Your task to perform on an android device: delete a single message in the gmail app Image 0: 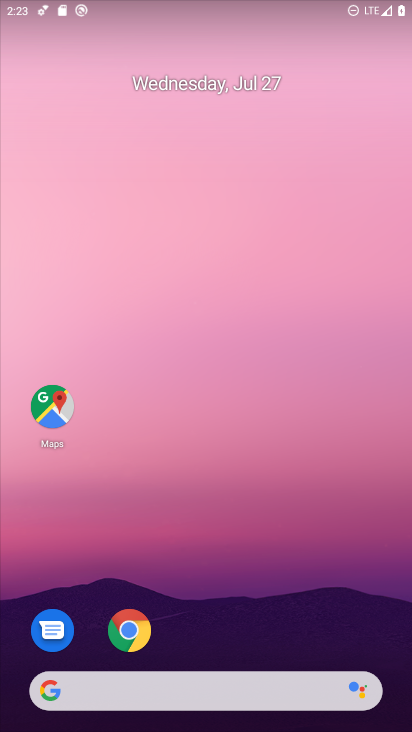
Step 0: drag from (362, 622) to (338, 110)
Your task to perform on an android device: delete a single message in the gmail app Image 1: 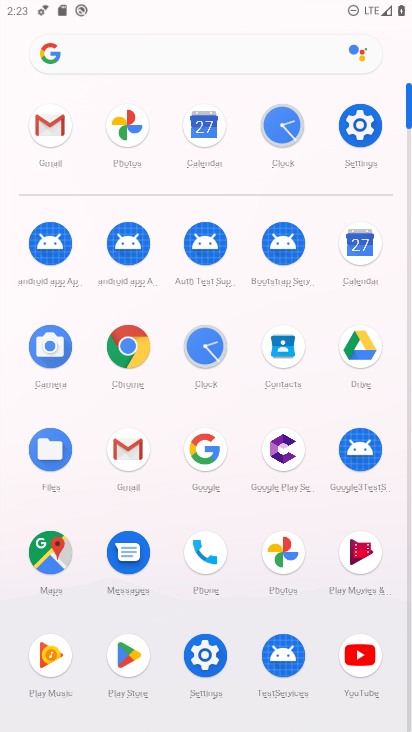
Step 1: click (127, 448)
Your task to perform on an android device: delete a single message in the gmail app Image 2: 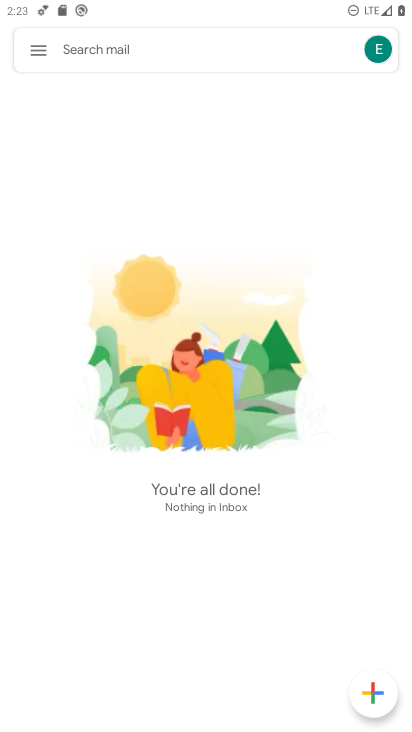
Step 2: click (32, 52)
Your task to perform on an android device: delete a single message in the gmail app Image 3: 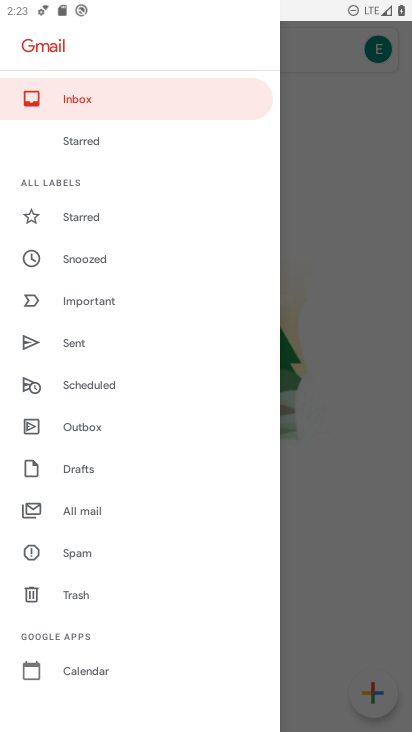
Step 3: click (87, 514)
Your task to perform on an android device: delete a single message in the gmail app Image 4: 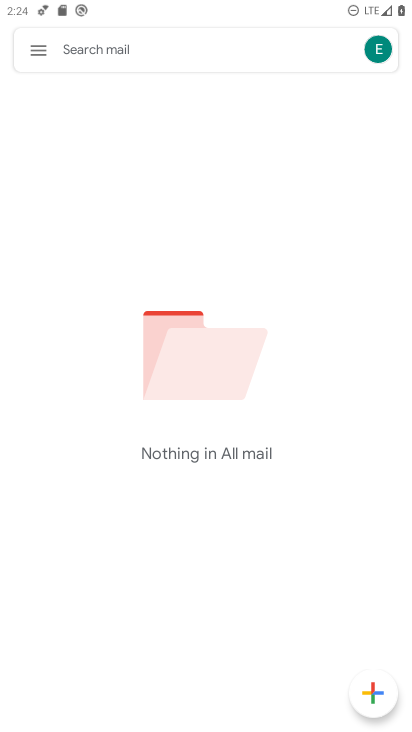
Step 4: task complete